Your task to perform on an android device: toggle show notifications on the lock screen Image 0: 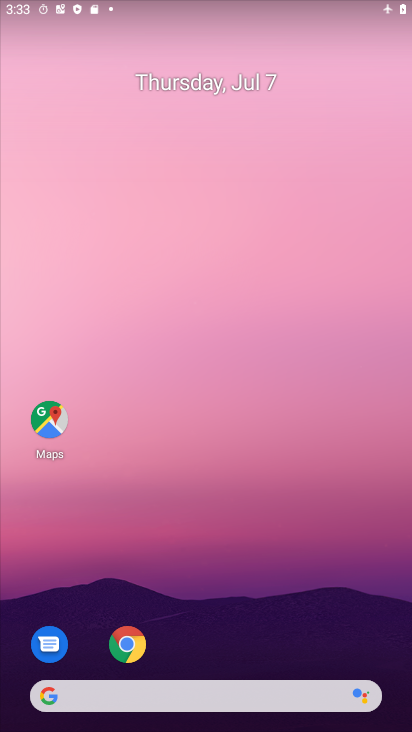
Step 0: drag from (212, 634) to (401, 37)
Your task to perform on an android device: toggle show notifications on the lock screen Image 1: 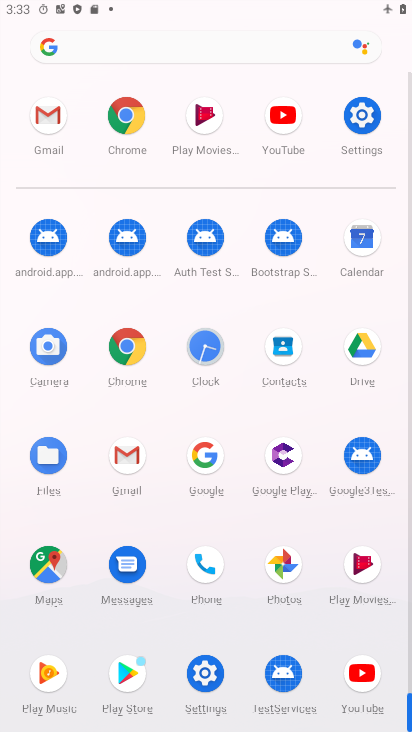
Step 1: click (350, 124)
Your task to perform on an android device: toggle show notifications on the lock screen Image 2: 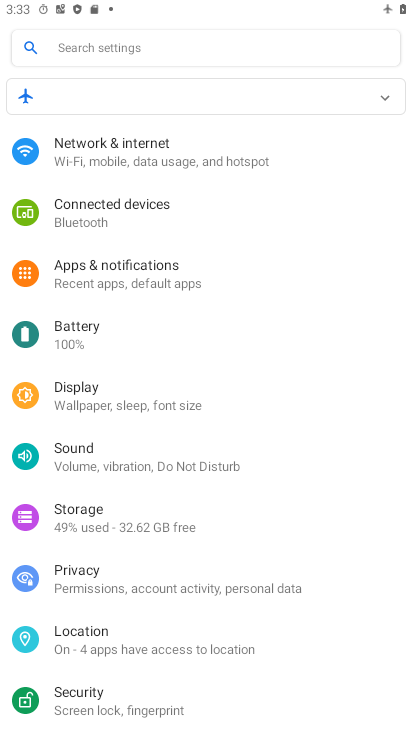
Step 2: click (112, 279)
Your task to perform on an android device: toggle show notifications on the lock screen Image 3: 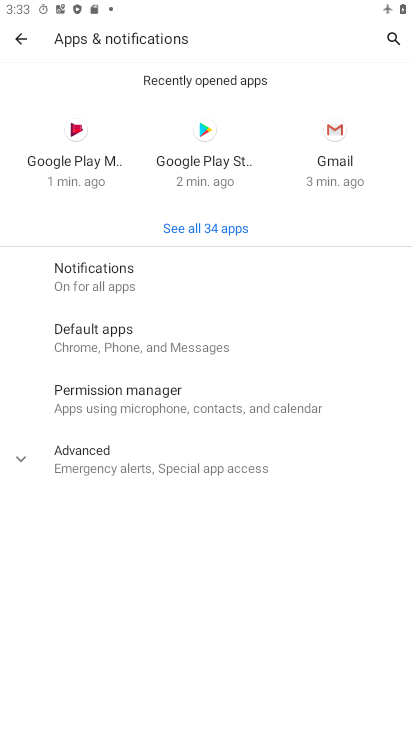
Step 3: click (135, 268)
Your task to perform on an android device: toggle show notifications on the lock screen Image 4: 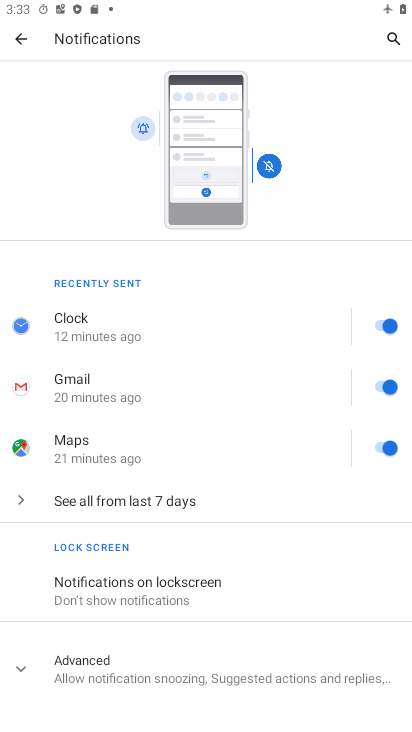
Step 4: click (198, 591)
Your task to perform on an android device: toggle show notifications on the lock screen Image 5: 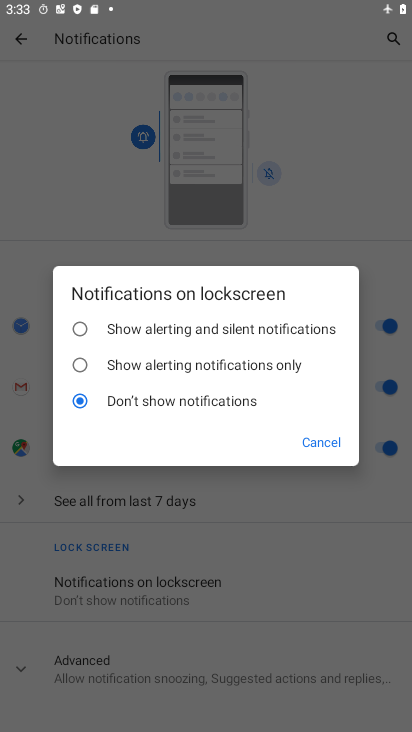
Step 5: click (97, 318)
Your task to perform on an android device: toggle show notifications on the lock screen Image 6: 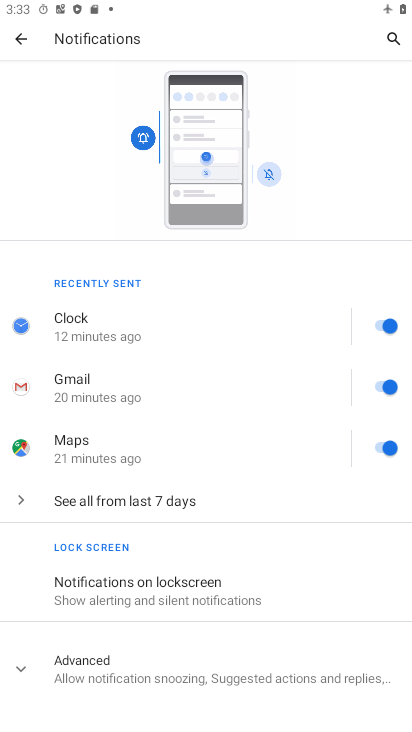
Step 6: task complete